Your task to perform on an android device: turn off improve location accuracy Image 0: 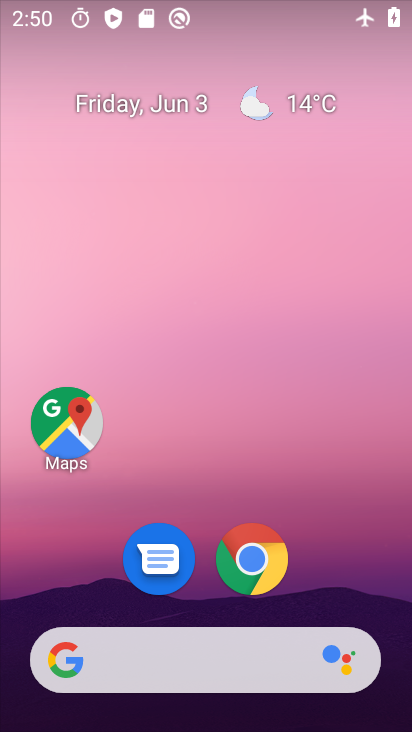
Step 0: drag from (213, 609) to (150, 2)
Your task to perform on an android device: turn off improve location accuracy Image 1: 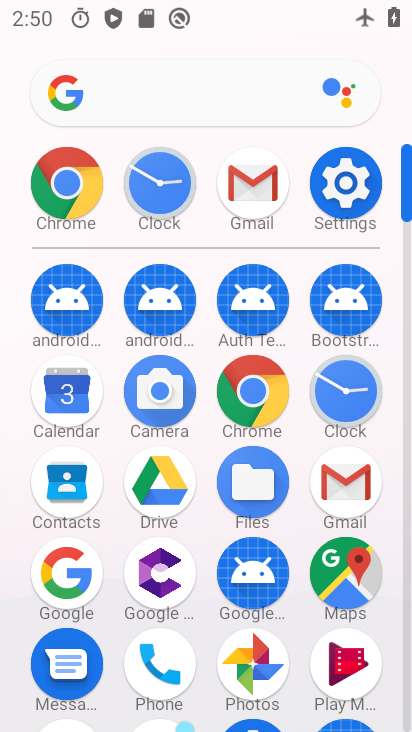
Step 1: click (337, 182)
Your task to perform on an android device: turn off improve location accuracy Image 2: 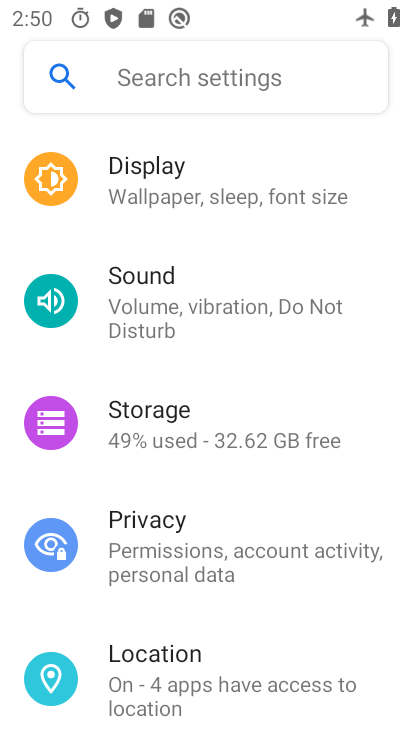
Step 2: click (161, 683)
Your task to perform on an android device: turn off improve location accuracy Image 3: 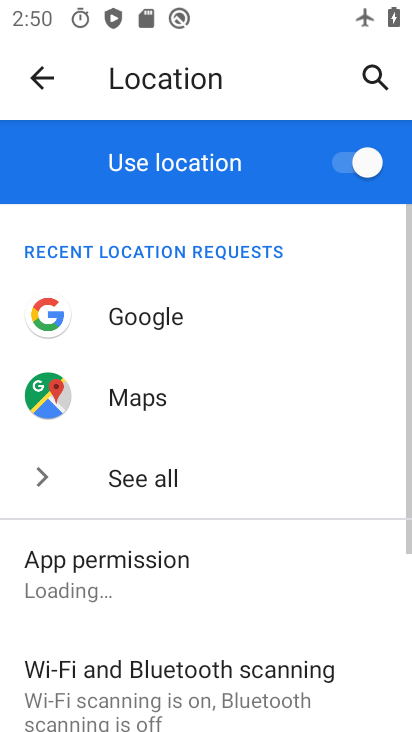
Step 3: drag from (197, 616) to (86, 104)
Your task to perform on an android device: turn off improve location accuracy Image 4: 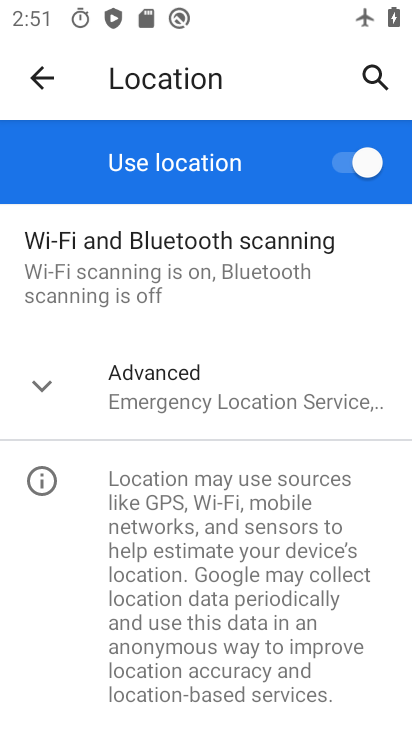
Step 4: click (206, 391)
Your task to perform on an android device: turn off improve location accuracy Image 5: 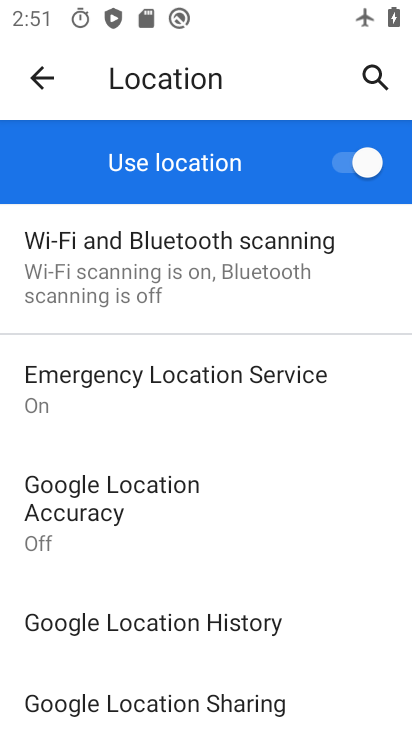
Step 5: click (174, 503)
Your task to perform on an android device: turn off improve location accuracy Image 6: 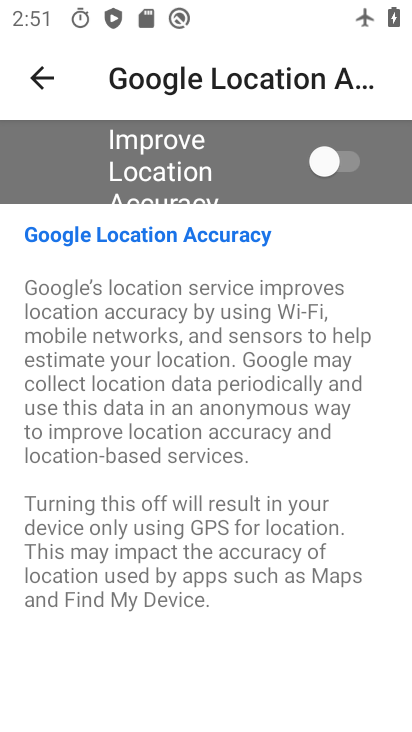
Step 6: task complete